Your task to perform on an android device: Search for Italian restaurants on Maps Image 0: 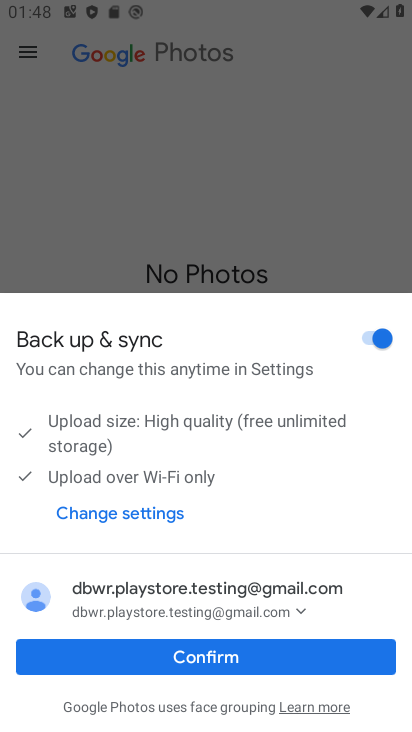
Step 0: press home button
Your task to perform on an android device: Search for Italian restaurants on Maps Image 1: 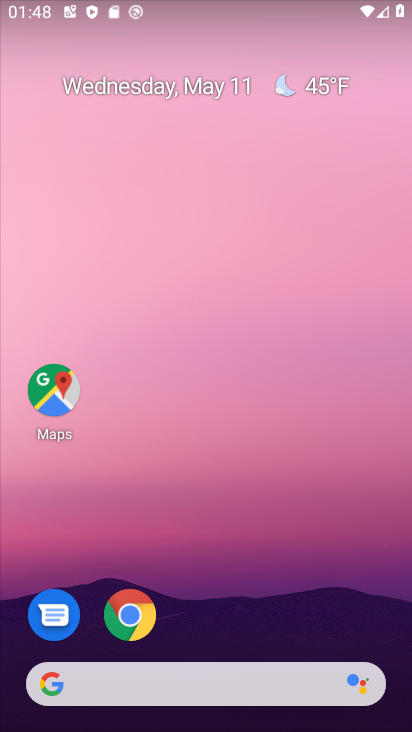
Step 1: drag from (307, 578) to (304, 162)
Your task to perform on an android device: Search for Italian restaurants on Maps Image 2: 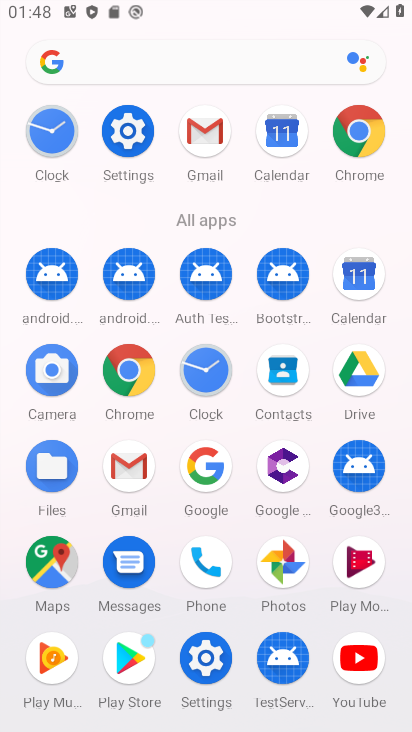
Step 2: click (41, 564)
Your task to perform on an android device: Search for Italian restaurants on Maps Image 3: 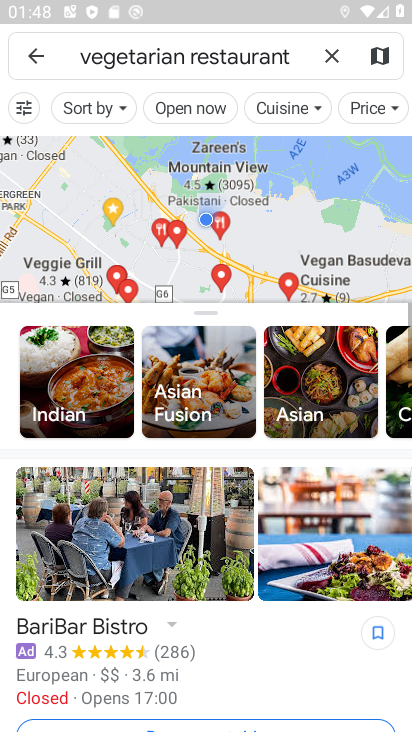
Step 3: click (337, 54)
Your task to perform on an android device: Search for Italian restaurants on Maps Image 4: 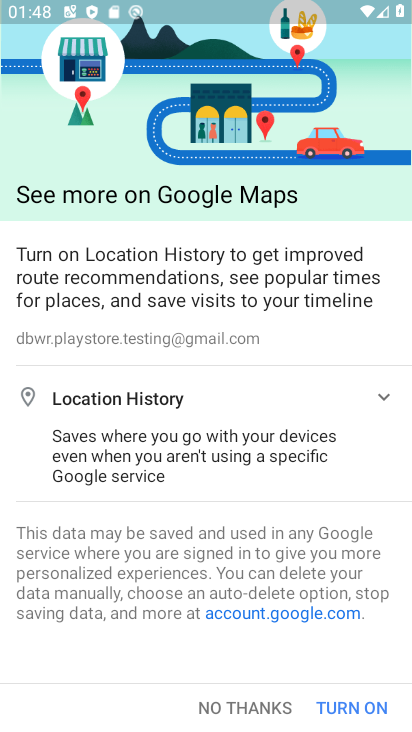
Step 4: click (205, 701)
Your task to perform on an android device: Search for Italian restaurants on Maps Image 5: 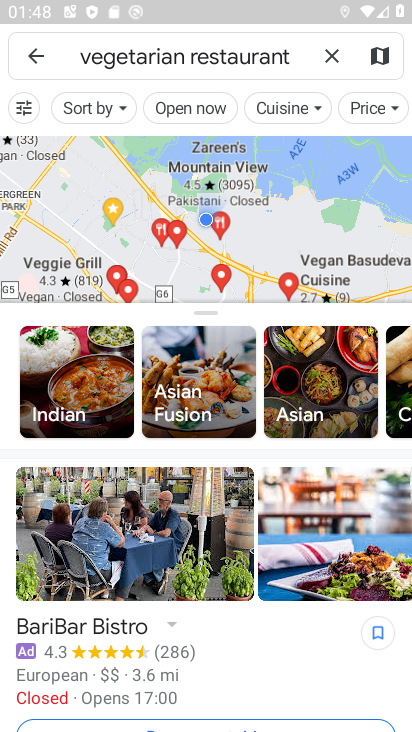
Step 5: click (330, 54)
Your task to perform on an android device: Search for Italian restaurants on Maps Image 6: 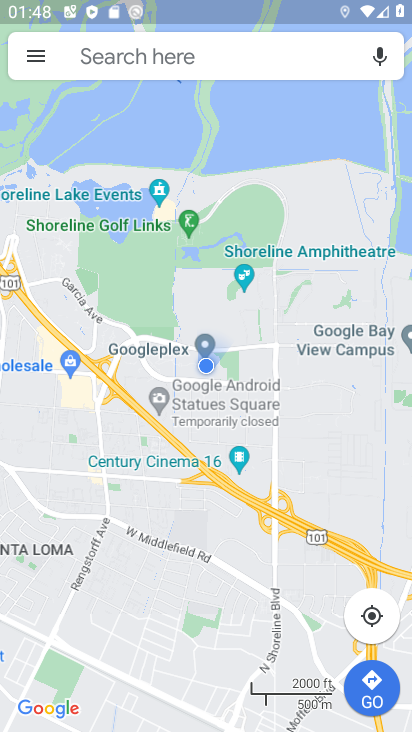
Step 6: click (267, 58)
Your task to perform on an android device: Search for Italian restaurants on Maps Image 7: 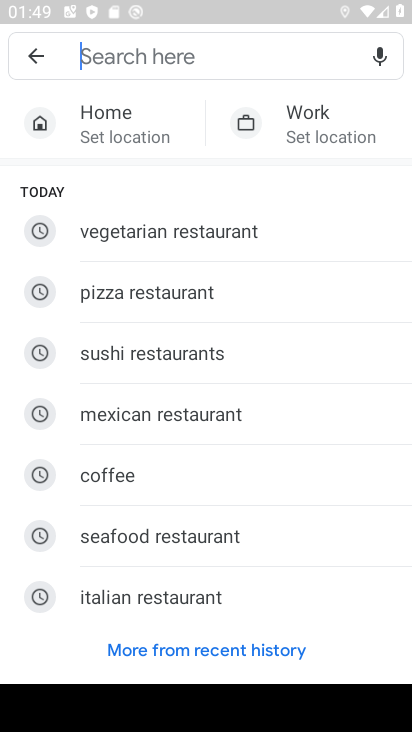
Step 7: type "italian restaurants"
Your task to perform on an android device: Search for Italian restaurants on Maps Image 8: 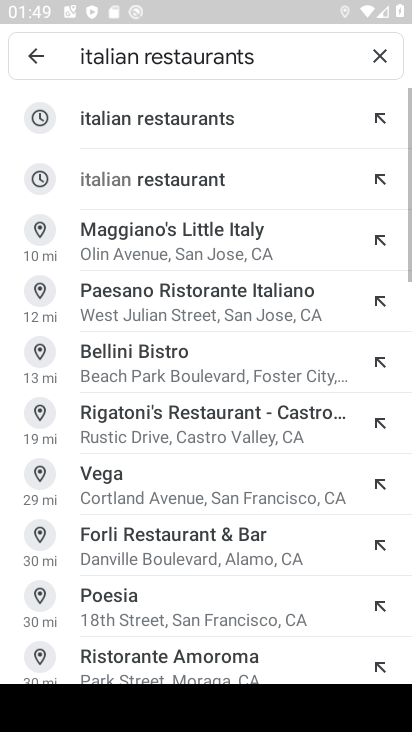
Step 8: click (136, 117)
Your task to perform on an android device: Search for Italian restaurants on Maps Image 9: 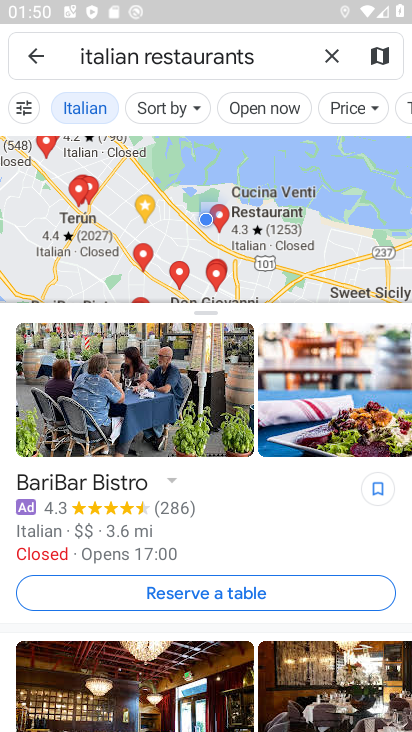
Step 9: task complete